Your task to perform on an android device: Open maps Image 0: 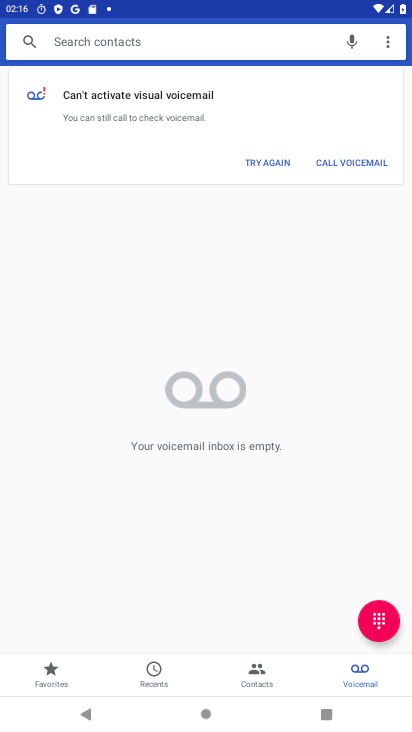
Step 0: drag from (210, 530) to (209, 268)
Your task to perform on an android device: Open maps Image 1: 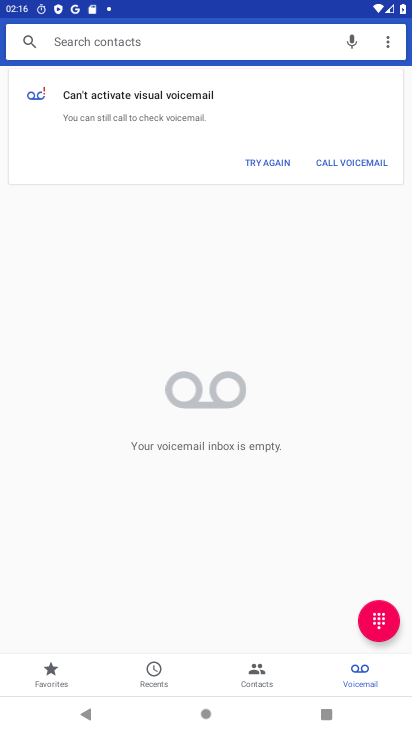
Step 1: drag from (250, 584) to (238, 506)
Your task to perform on an android device: Open maps Image 2: 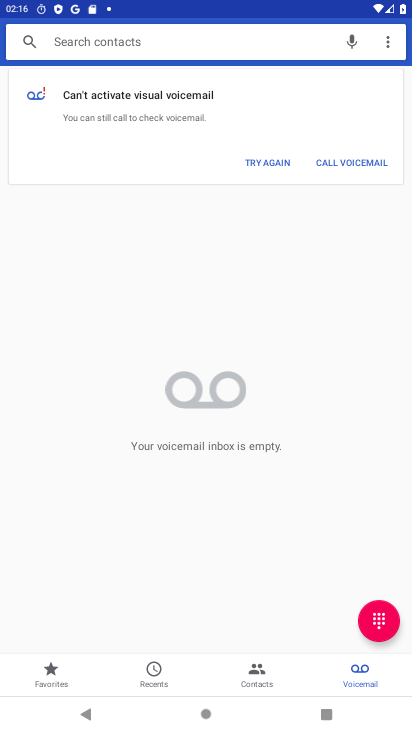
Step 2: press home button
Your task to perform on an android device: Open maps Image 3: 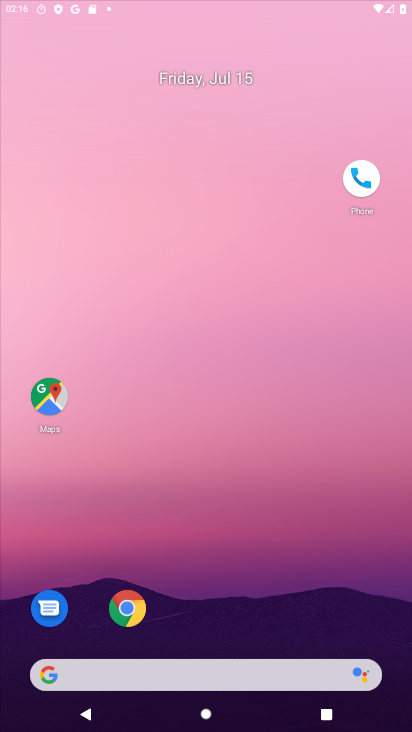
Step 3: drag from (191, 605) to (305, 72)
Your task to perform on an android device: Open maps Image 4: 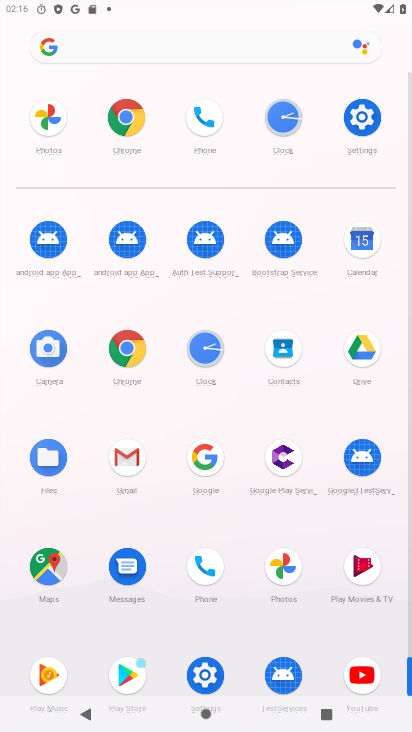
Step 4: click (37, 564)
Your task to perform on an android device: Open maps Image 5: 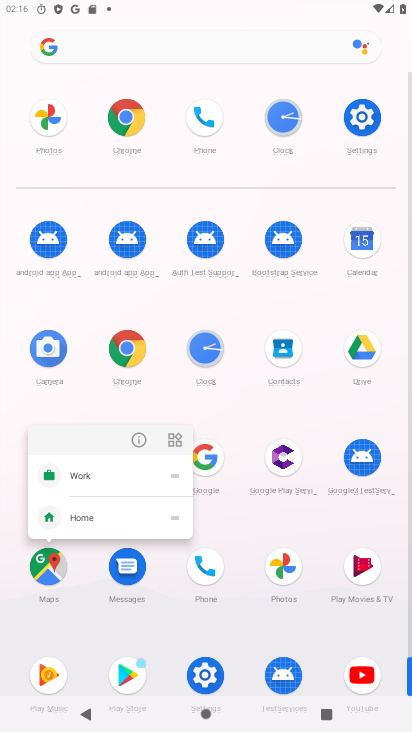
Step 5: click (134, 435)
Your task to perform on an android device: Open maps Image 6: 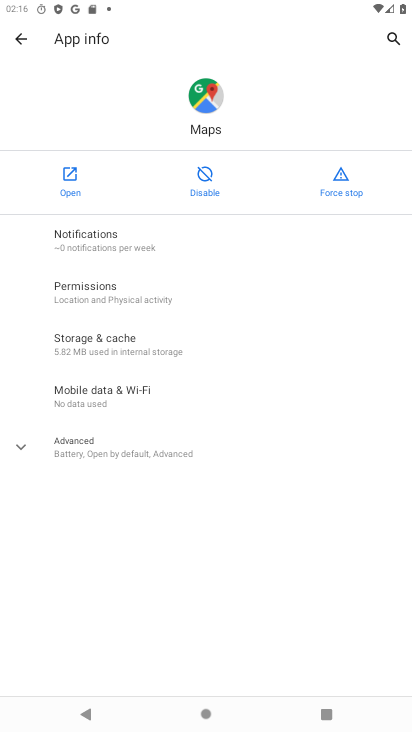
Step 6: click (61, 180)
Your task to perform on an android device: Open maps Image 7: 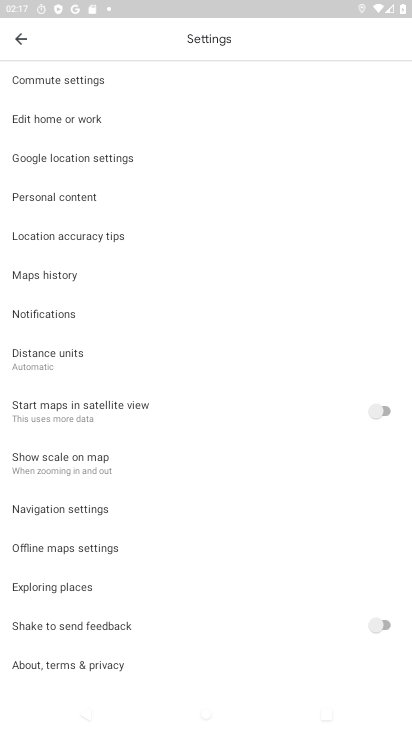
Step 7: drag from (184, 209) to (256, 595)
Your task to perform on an android device: Open maps Image 8: 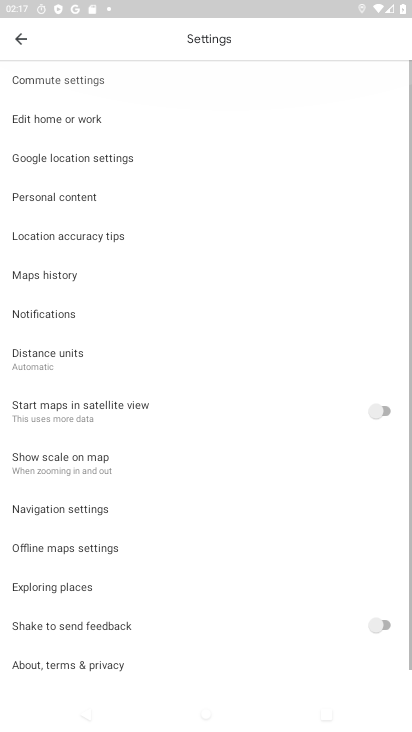
Step 8: click (29, 31)
Your task to perform on an android device: Open maps Image 9: 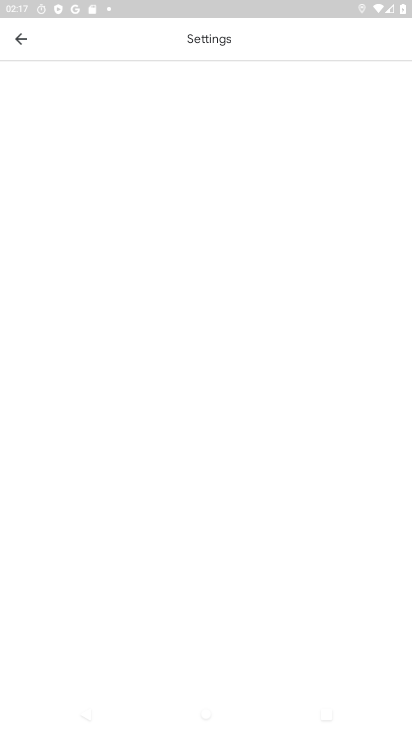
Step 9: click (19, 29)
Your task to perform on an android device: Open maps Image 10: 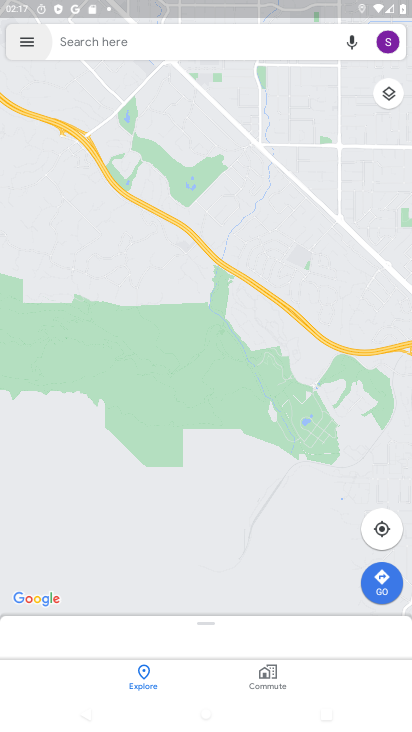
Step 10: task complete